Your task to perform on an android device: turn on javascript in the chrome app Image 0: 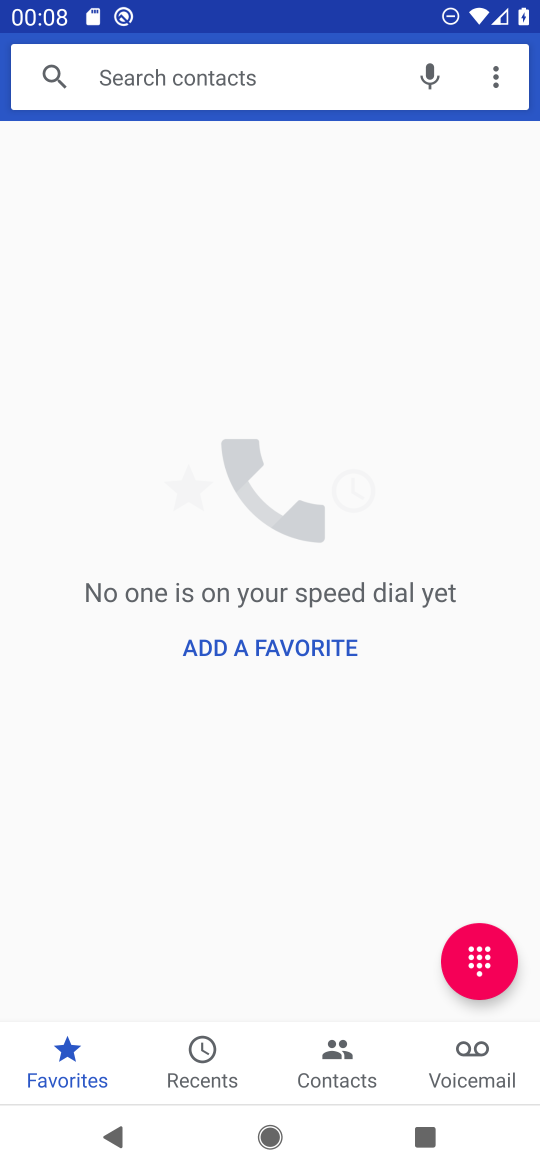
Step 0: press home button
Your task to perform on an android device: turn on javascript in the chrome app Image 1: 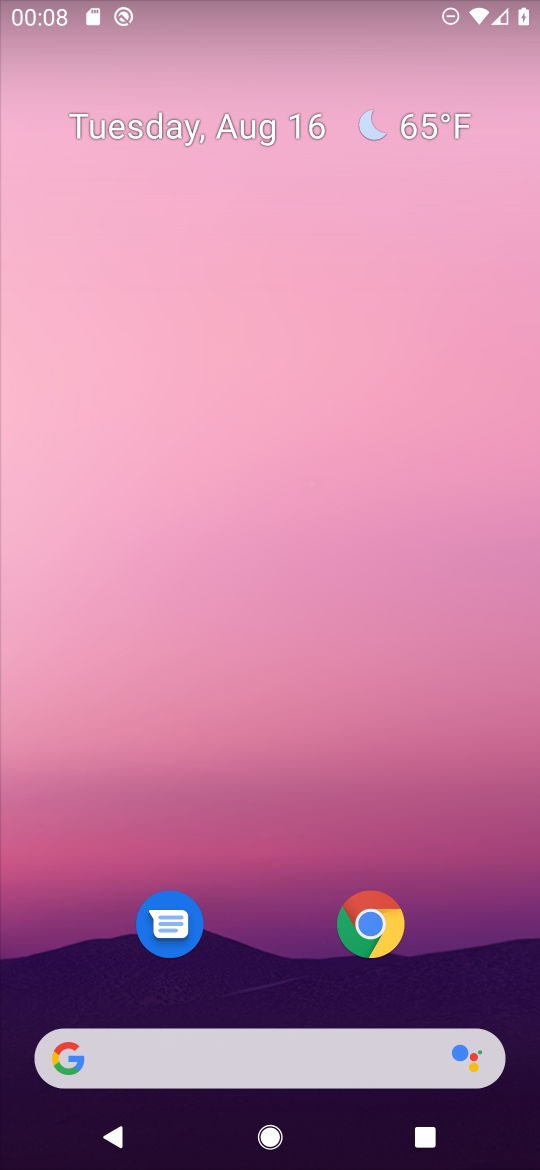
Step 1: click (381, 914)
Your task to perform on an android device: turn on javascript in the chrome app Image 2: 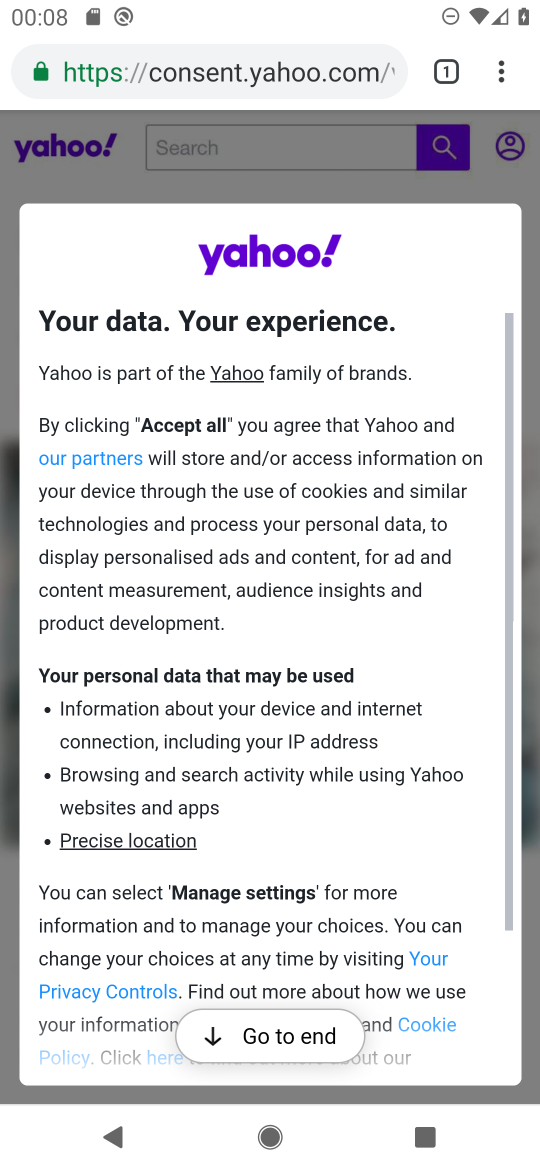
Step 2: click (502, 70)
Your task to perform on an android device: turn on javascript in the chrome app Image 3: 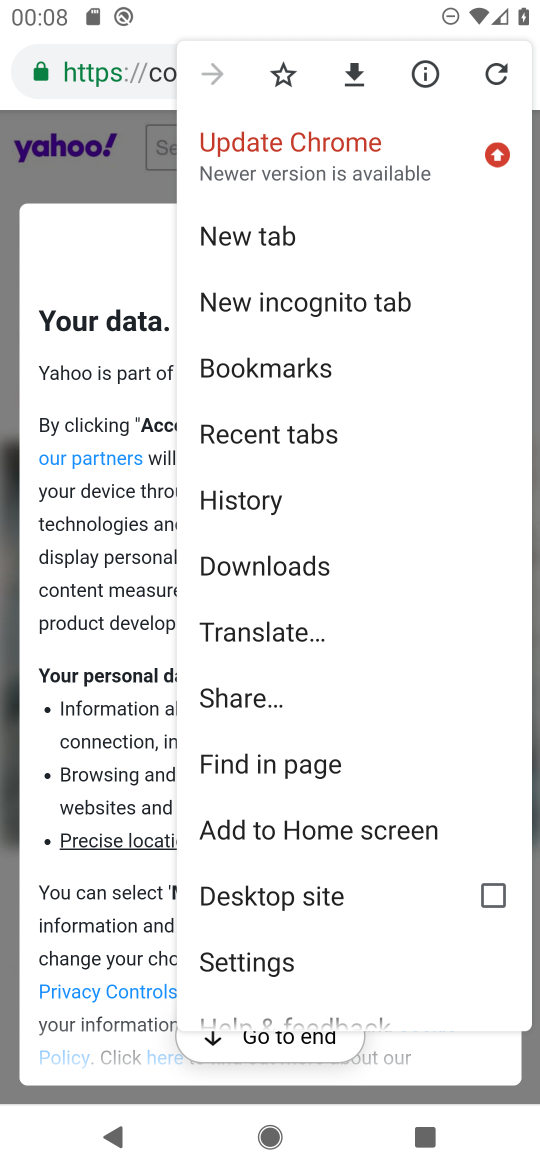
Step 3: click (266, 949)
Your task to perform on an android device: turn on javascript in the chrome app Image 4: 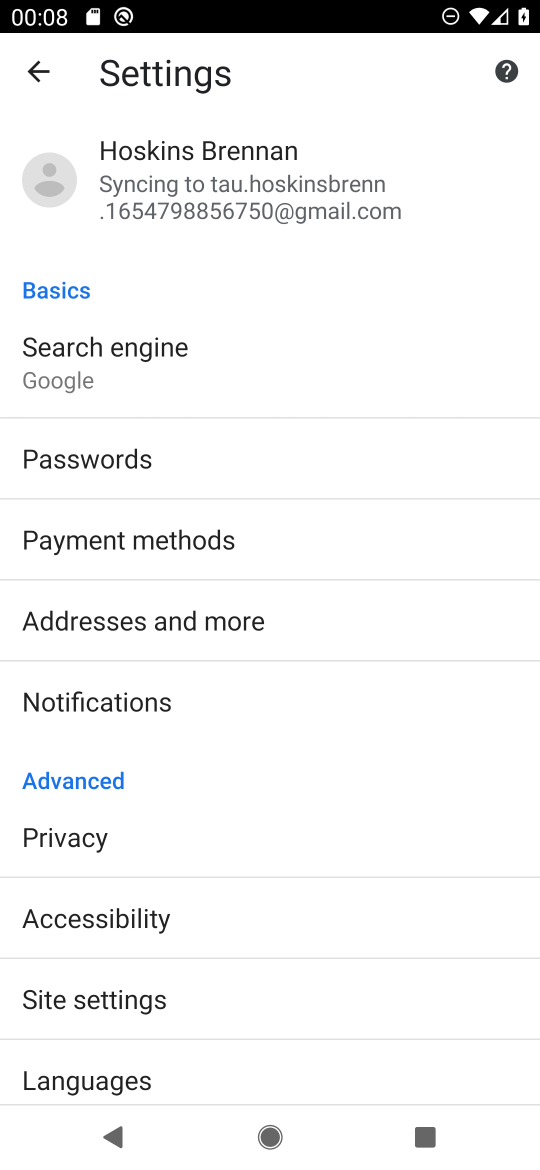
Step 4: click (112, 982)
Your task to perform on an android device: turn on javascript in the chrome app Image 5: 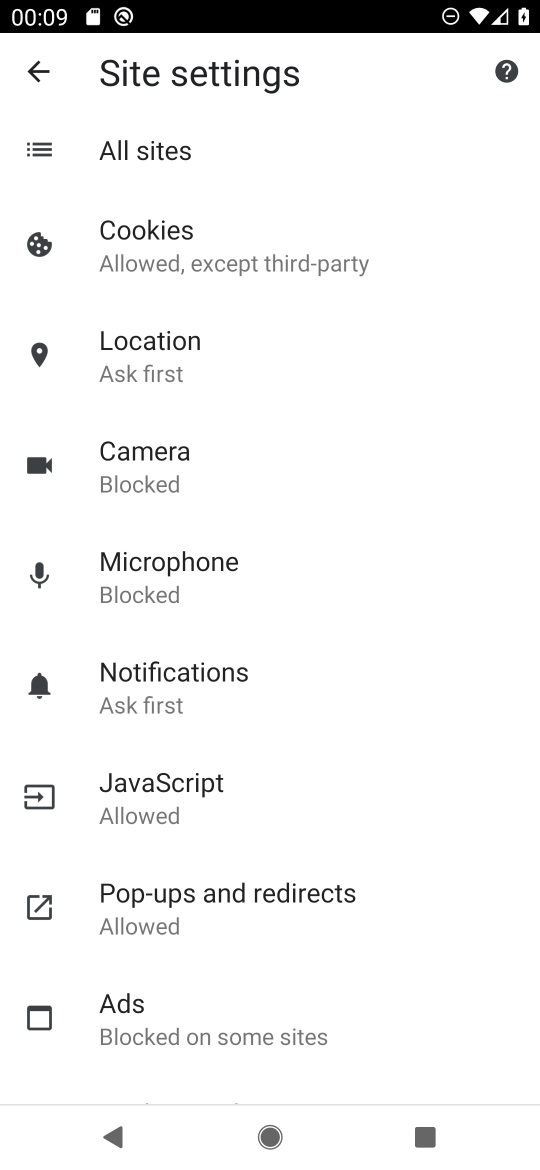
Step 5: click (205, 792)
Your task to perform on an android device: turn on javascript in the chrome app Image 6: 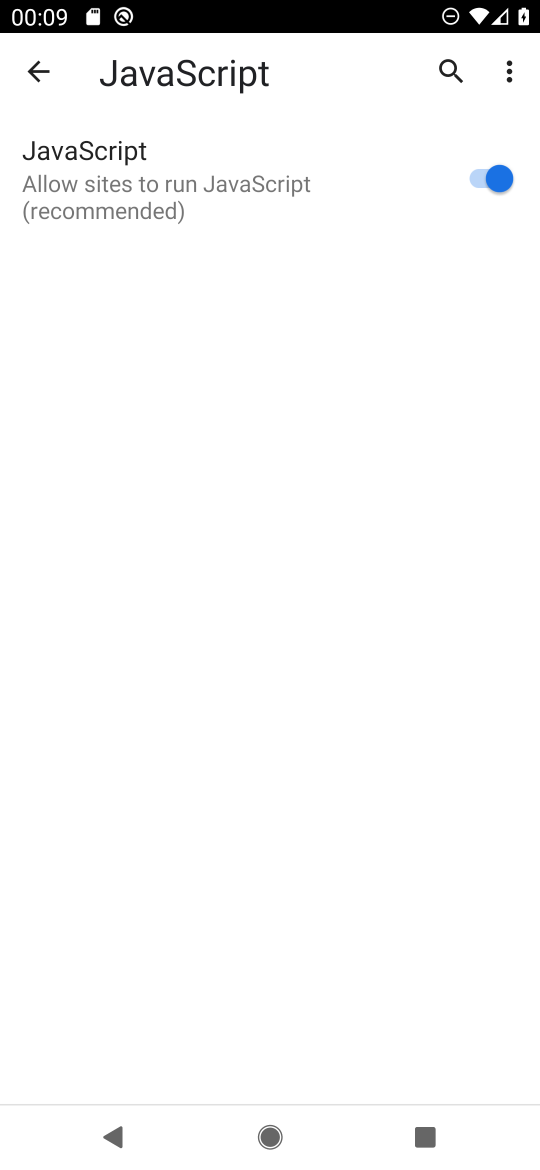
Step 6: task complete